Your task to perform on an android device: What's the weather? Image 0: 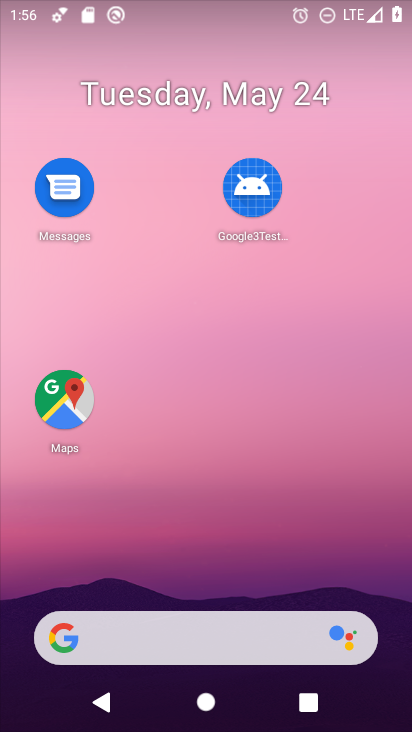
Step 0: click (200, 638)
Your task to perform on an android device: What's the weather? Image 1: 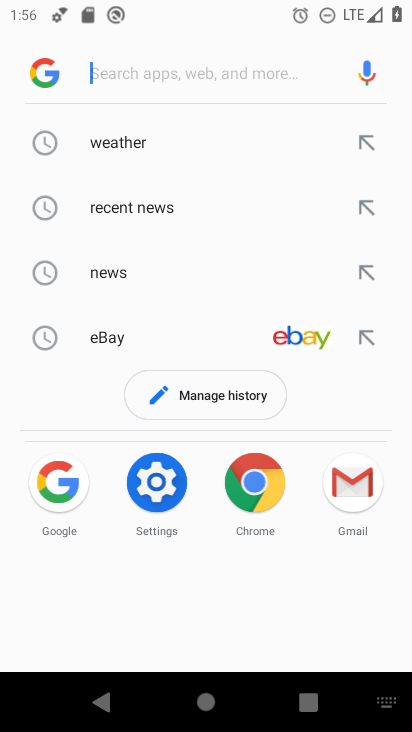
Step 1: click (154, 127)
Your task to perform on an android device: What's the weather? Image 2: 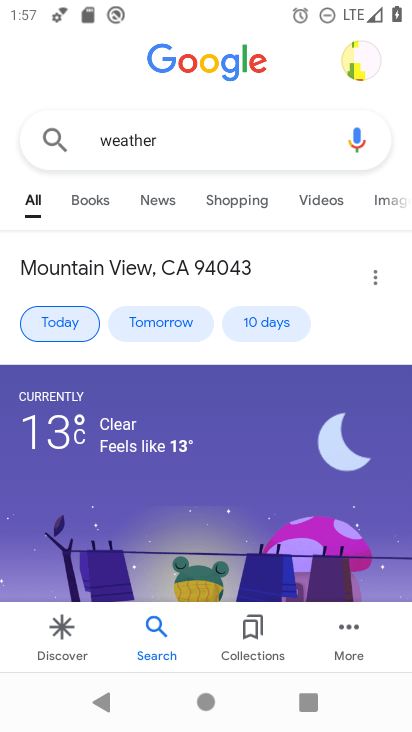
Step 2: task complete